Your task to perform on an android device: Open Android settings Image 0: 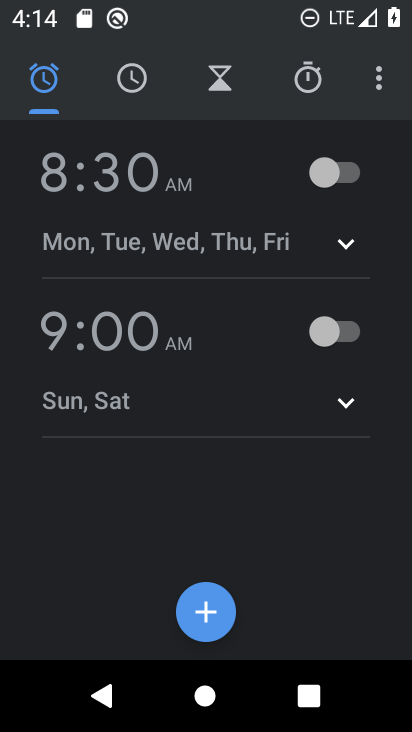
Step 0: press back button
Your task to perform on an android device: Open Android settings Image 1: 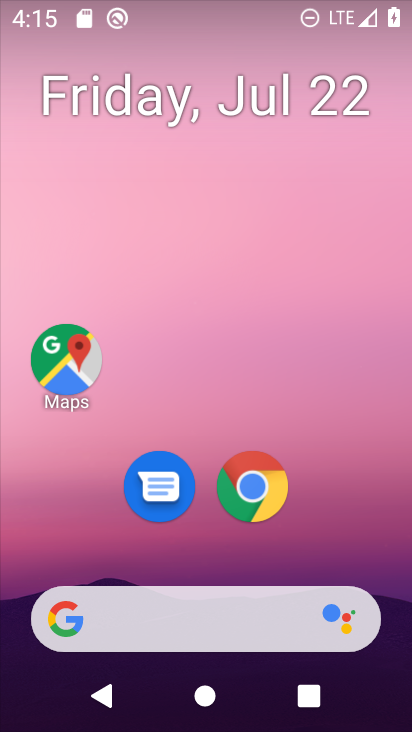
Step 1: drag from (203, 534) to (279, 60)
Your task to perform on an android device: Open Android settings Image 2: 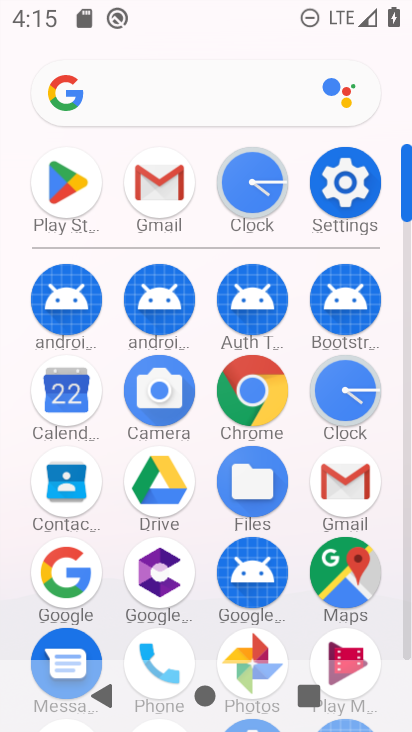
Step 2: click (353, 181)
Your task to perform on an android device: Open Android settings Image 3: 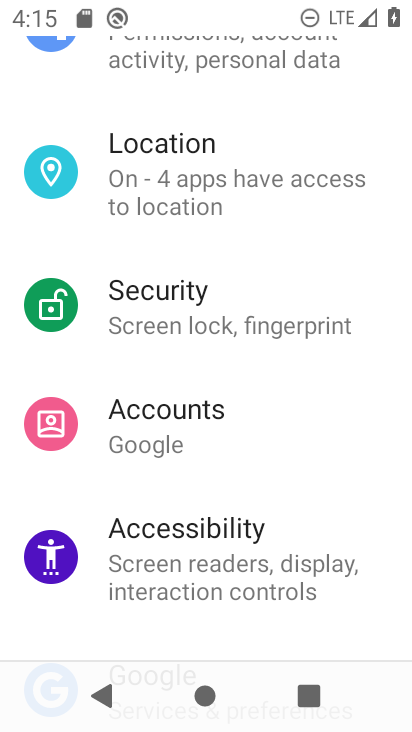
Step 3: drag from (169, 610) to (283, 2)
Your task to perform on an android device: Open Android settings Image 4: 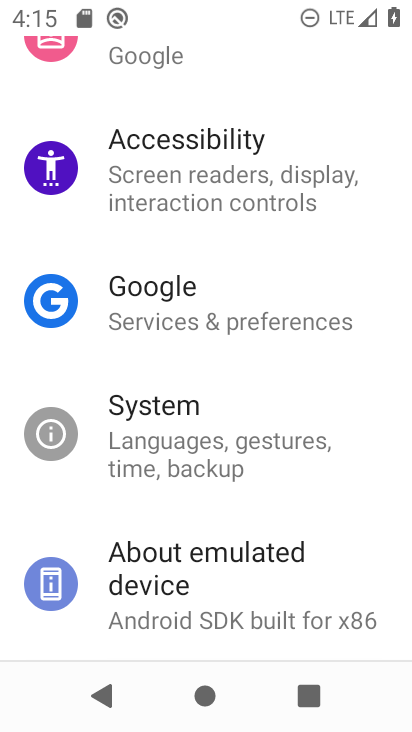
Step 4: drag from (196, 596) to (300, 14)
Your task to perform on an android device: Open Android settings Image 5: 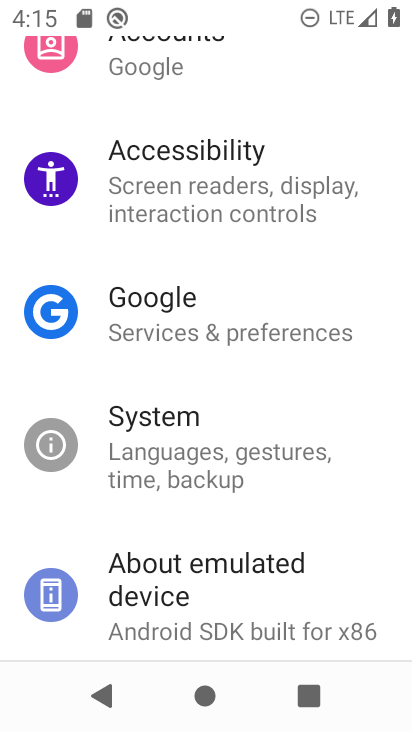
Step 5: click (171, 621)
Your task to perform on an android device: Open Android settings Image 6: 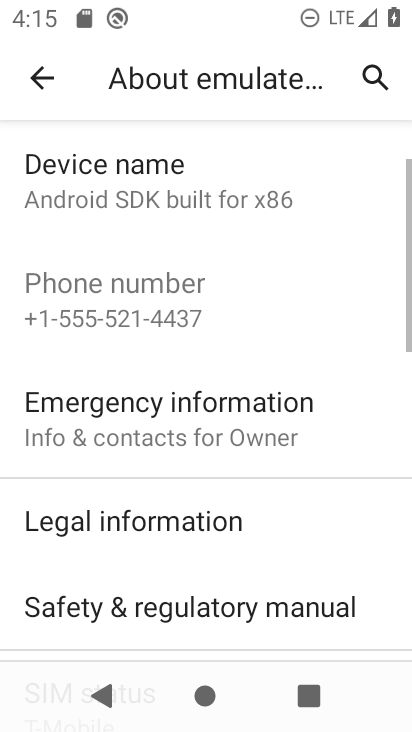
Step 6: drag from (131, 576) to (287, 37)
Your task to perform on an android device: Open Android settings Image 7: 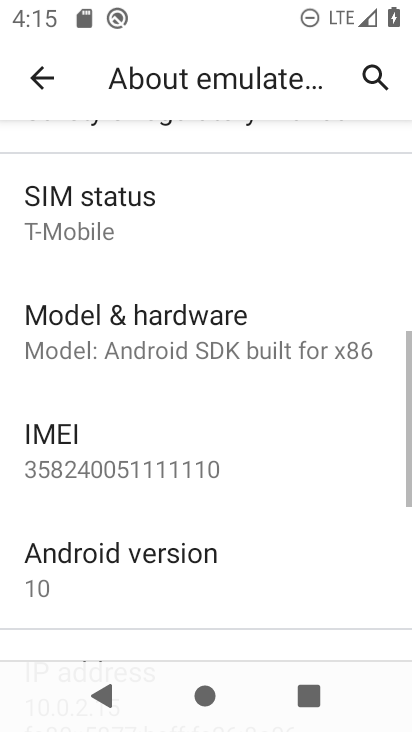
Step 7: click (127, 557)
Your task to perform on an android device: Open Android settings Image 8: 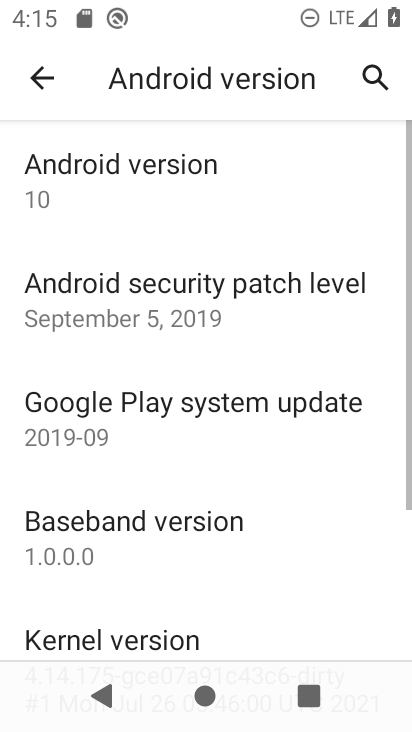
Step 8: task complete